Your task to perform on an android device: change keyboard looks Image 0: 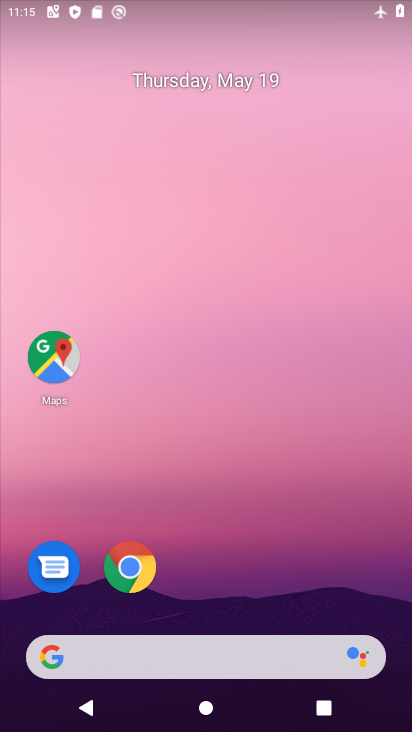
Step 0: drag from (390, 623) to (330, 88)
Your task to perform on an android device: change keyboard looks Image 1: 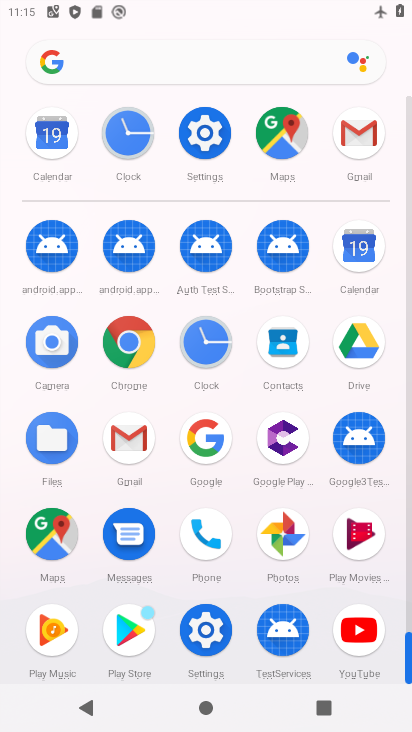
Step 1: click (204, 630)
Your task to perform on an android device: change keyboard looks Image 2: 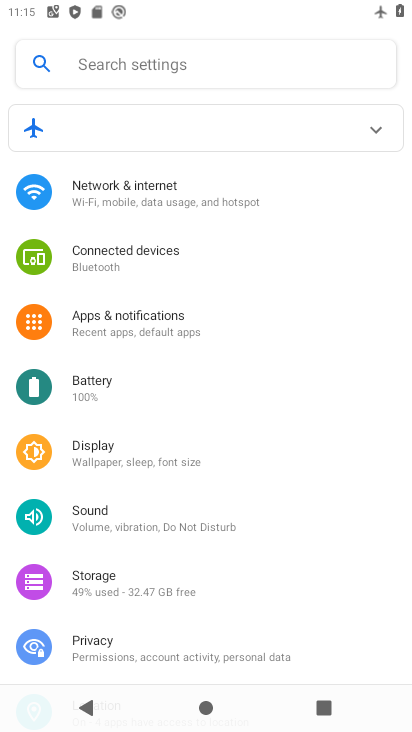
Step 2: drag from (339, 626) to (301, 151)
Your task to perform on an android device: change keyboard looks Image 3: 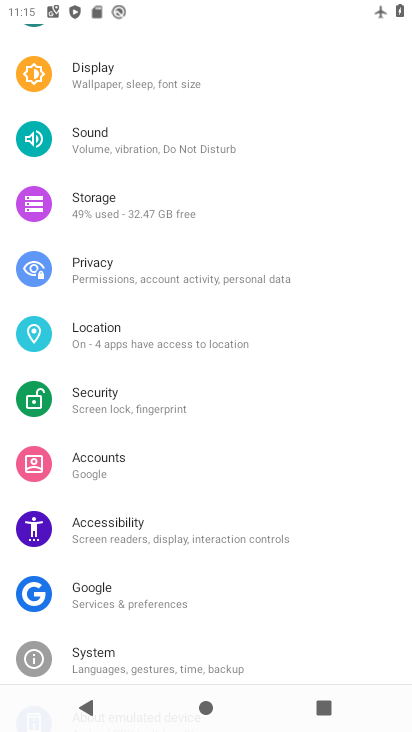
Step 3: drag from (315, 600) to (286, 39)
Your task to perform on an android device: change keyboard looks Image 4: 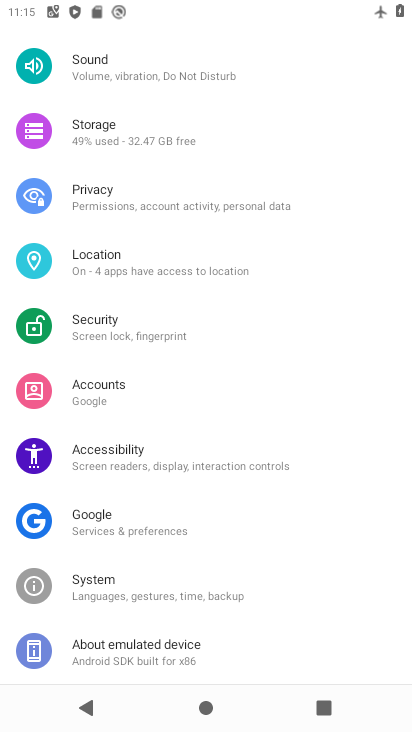
Step 4: click (99, 653)
Your task to perform on an android device: change keyboard looks Image 5: 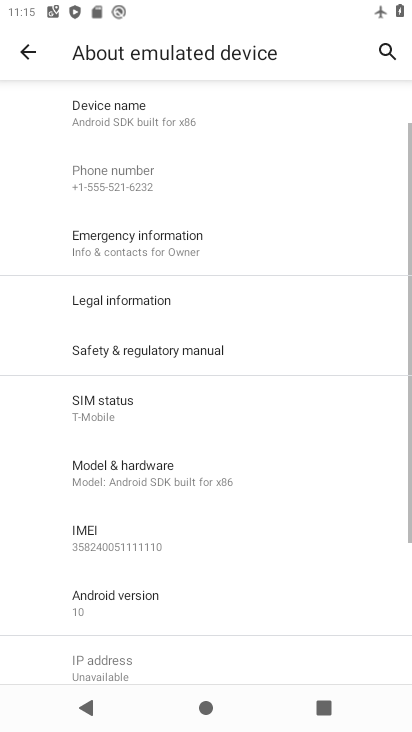
Step 5: drag from (261, 213) to (247, 440)
Your task to perform on an android device: change keyboard looks Image 6: 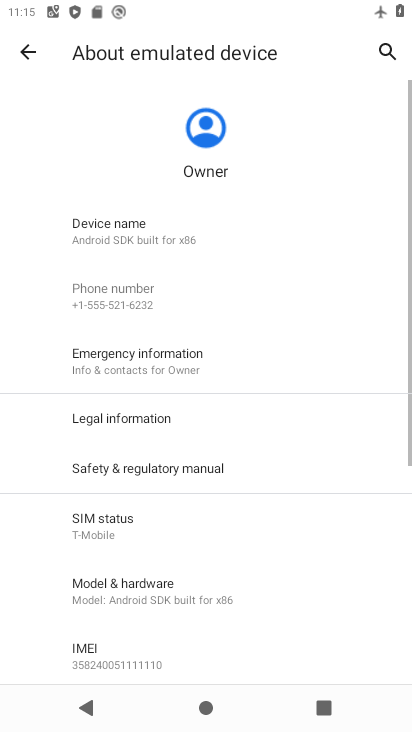
Step 6: press back button
Your task to perform on an android device: change keyboard looks Image 7: 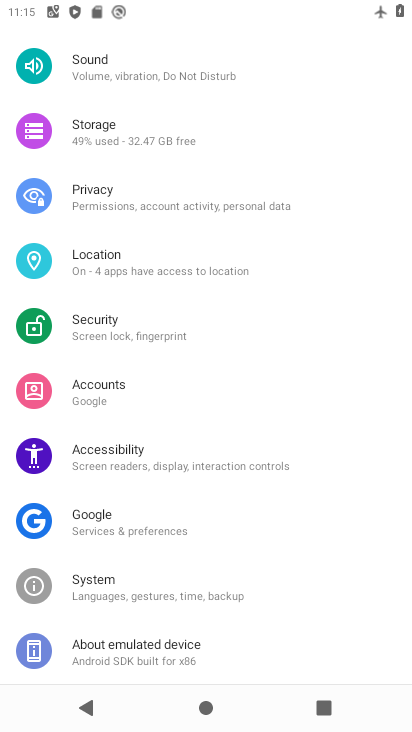
Step 7: click (98, 589)
Your task to perform on an android device: change keyboard looks Image 8: 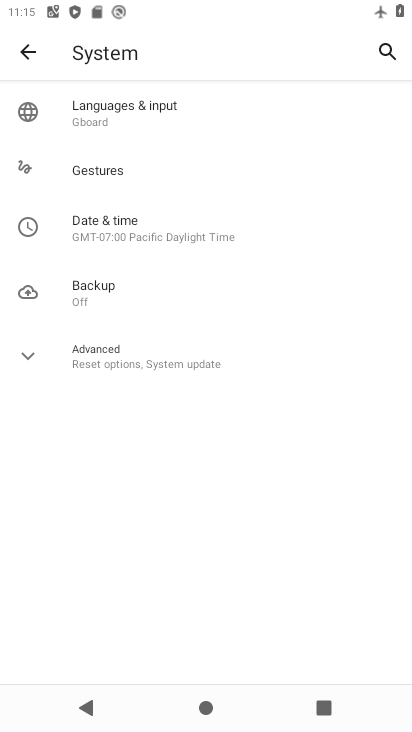
Step 8: click (102, 109)
Your task to perform on an android device: change keyboard looks Image 9: 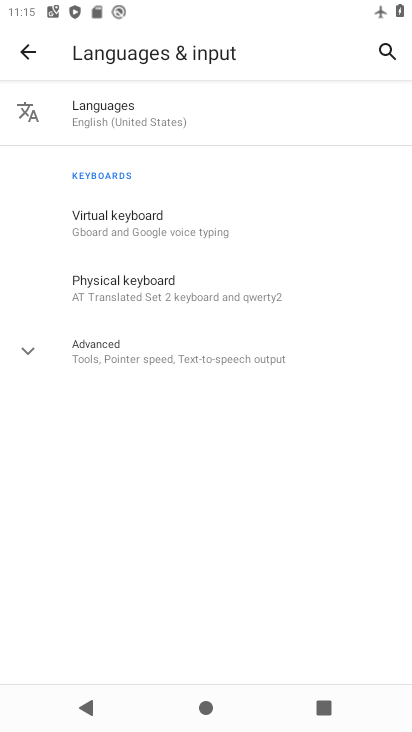
Step 9: click (115, 291)
Your task to perform on an android device: change keyboard looks Image 10: 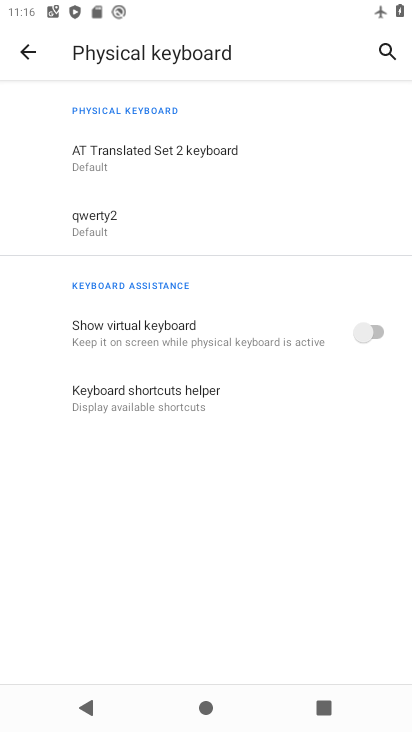
Step 10: click (97, 207)
Your task to perform on an android device: change keyboard looks Image 11: 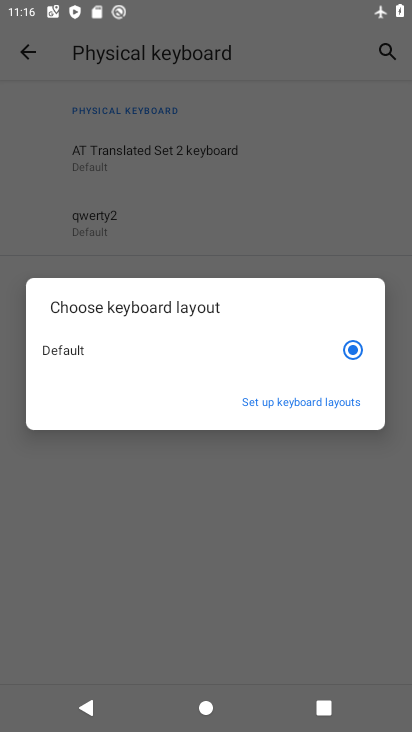
Step 11: click (314, 401)
Your task to perform on an android device: change keyboard looks Image 12: 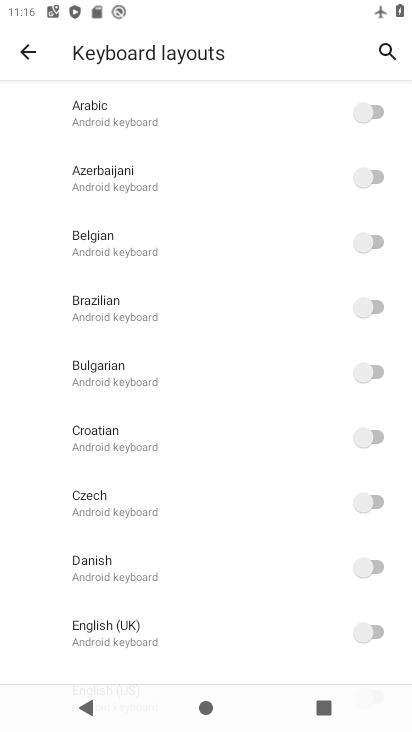
Step 12: click (376, 631)
Your task to perform on an android device: change keyboard looks Image 13: 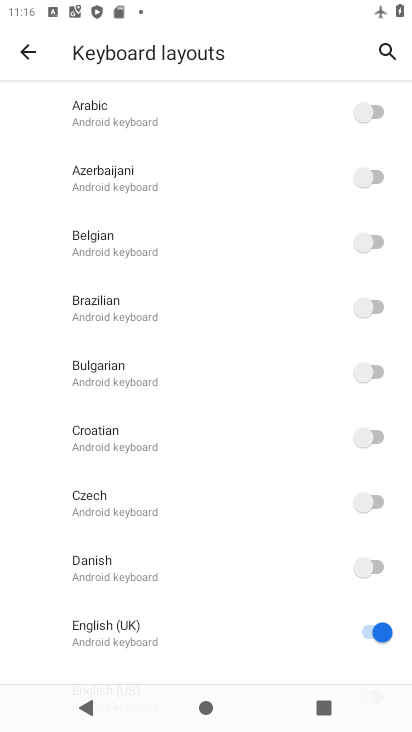
Step 13: task complete